Your task to perform on an android device: turn on wifi Image 0: 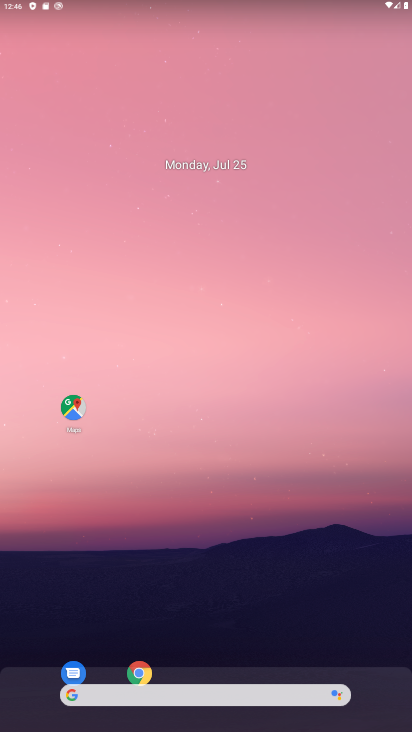
Step 0: drag from (336, 658) to (345, 231)
Your task to perform on an android device: turn on wifi Image 1: 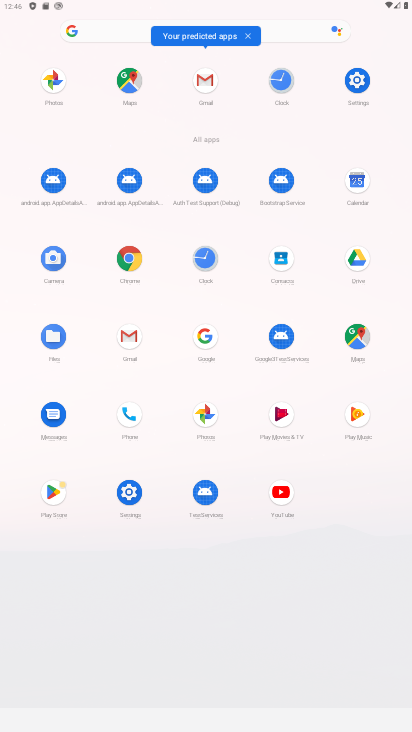
Step 1: click (130, 491)
Your task to perform on an android device: turn on wifi Image 2: 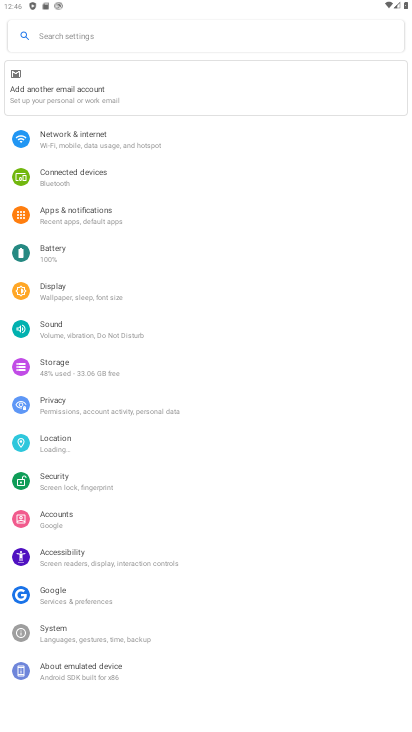
Step 2: click (70, 137)
Your task to perform on an android device: turn on wifi Image 3: 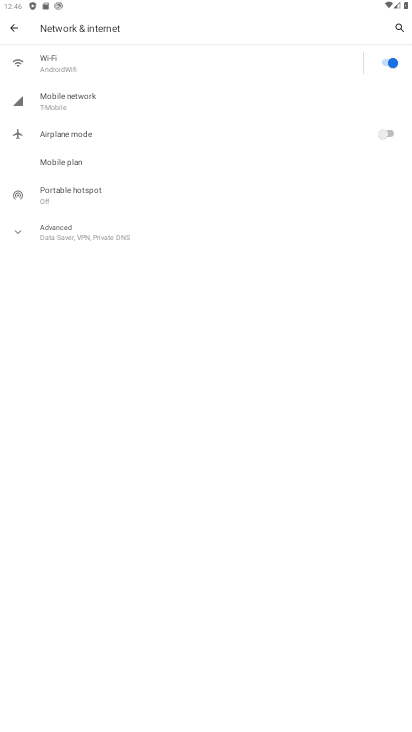
Step 3: task complete